Your task to perform on an android device: empty trash in the gmail app Image 0: 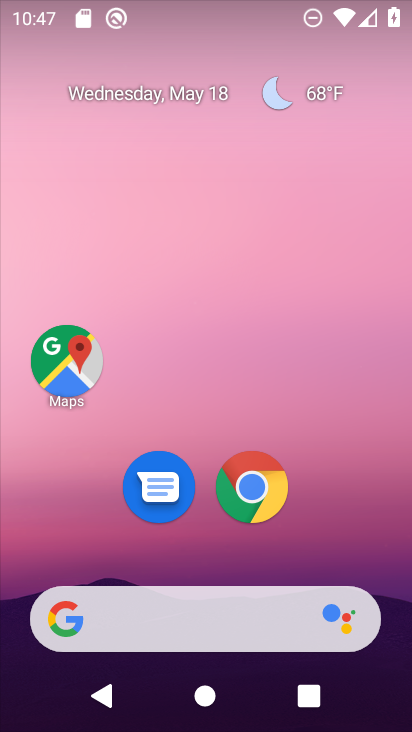
Step 0: drag from (328, 519) to (317, 228)
Your task to perform on an android device: empty trash in the gmail app Image 1: 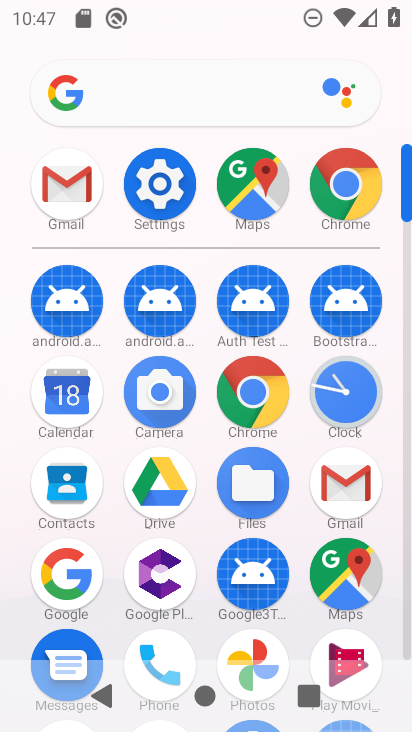
Step 1: click (355, 469)
Your task to perform on an android device: empty trash in the gmail app Image 2: 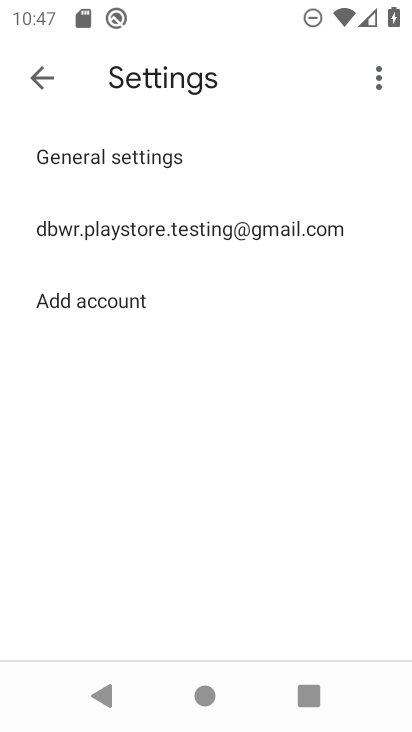
Step 2: click (28, 65)
Your task to perform on an android device: empty trash in the gmail app Image 3: 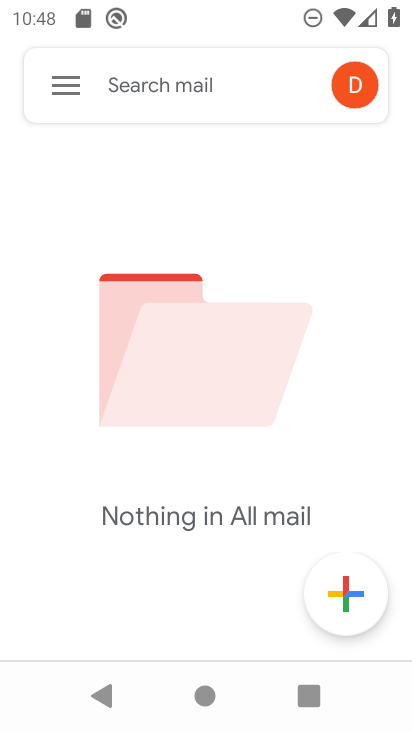
Step 3: click (74, 103)
Your task to perform on an android device: empty trash in the gmail app Image 4: 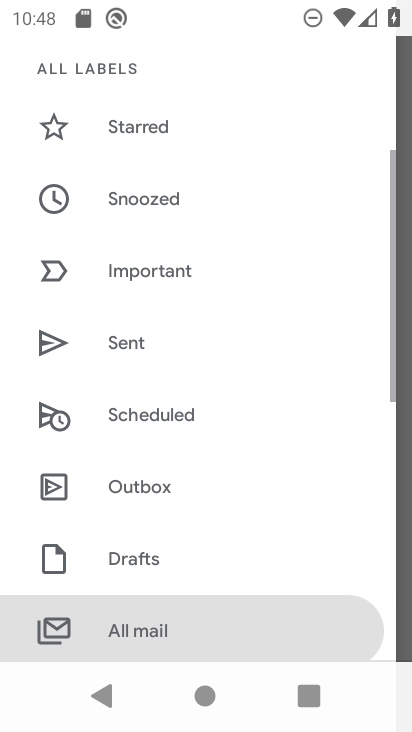
Step 4: drag from (183, 520) to (215, 158)
Your task to perform on an android device: empty trash in the gmail app Image 5: 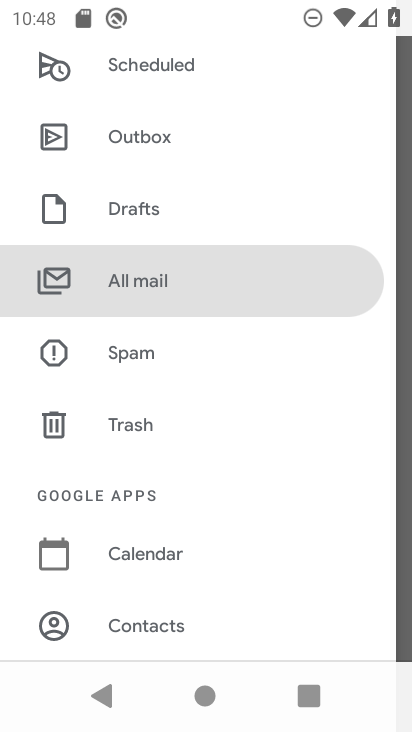
Step 5: click (187, 432)
Your task to perform on an android device: empty trash in the gmail app Image 6: 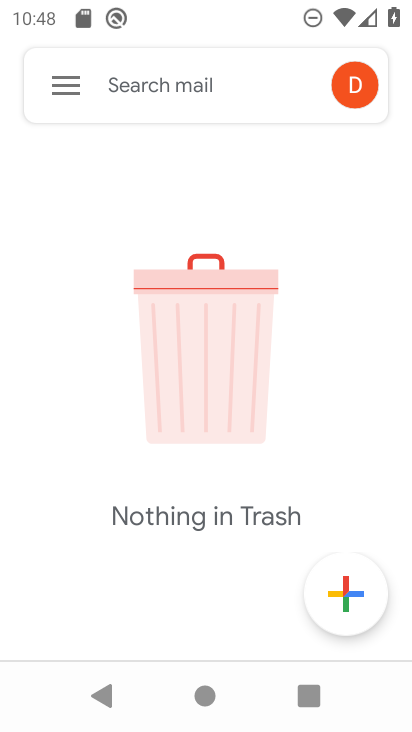
Step 6: task complete